Your task to perform on an android device: turn off smart reply in the gmail app Image 0: 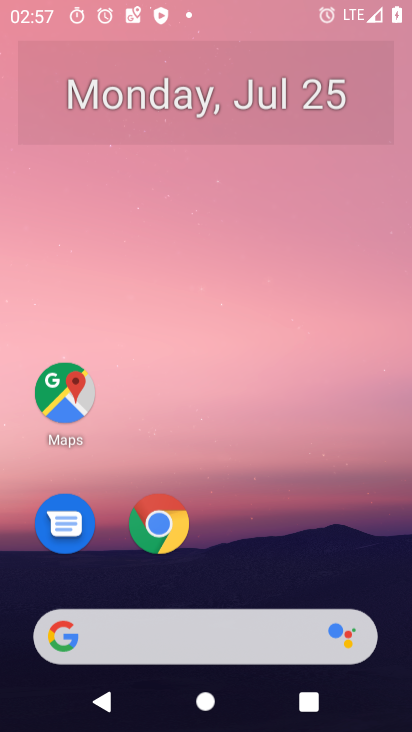
Step 0: press home button
Your task to perform on an android device: turn off smart reply in the gmail app Image 1: 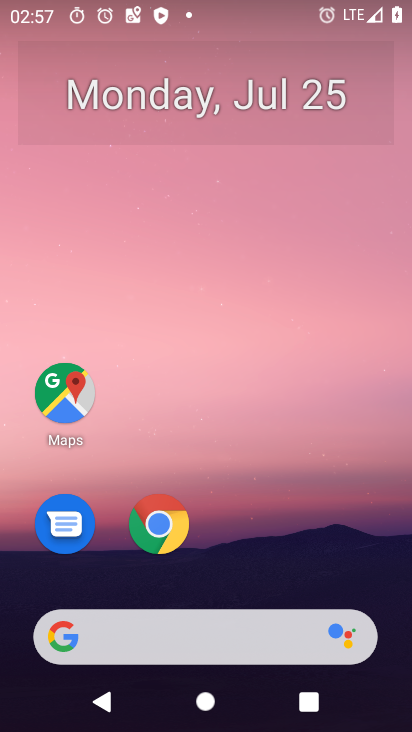
Step 1: drag from (270, 573) to (294, 80)
Your task to perform on an android device: turn off smart reply in the gmail app Image 2: 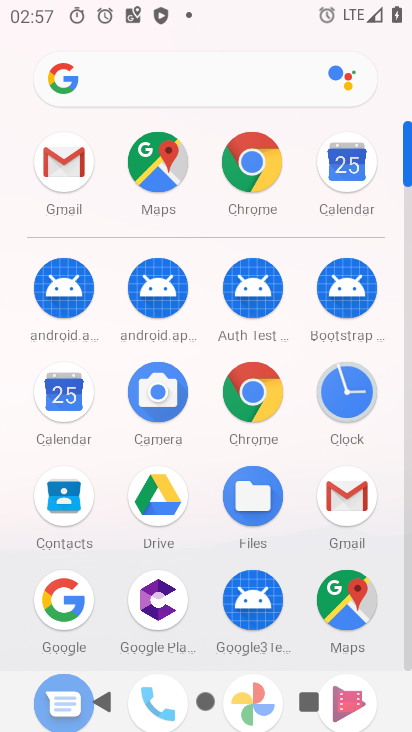
Step 2: click (68, 157)
Your task to perform on an android device: turn off smart reply in the gmail app Image 3: 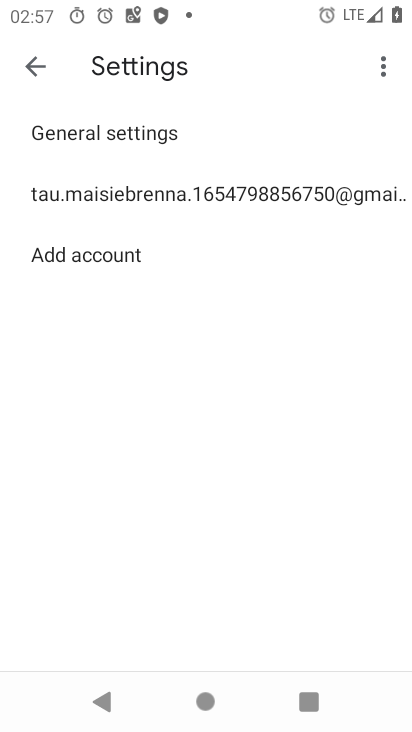
Step 3: click (159, 199)
Your task to perform on an android device: turn off smart reply in the gmail app Image 4: 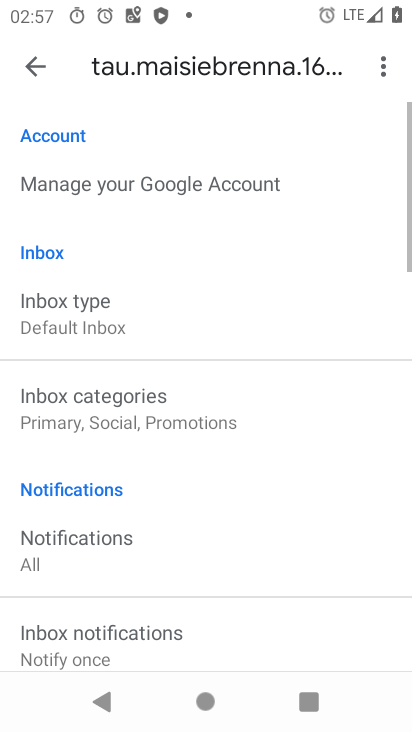
Step 4: drag from (285, 651) to (217, 90)
Your task to perform on an android device: turn off smart reply in the gmail app Image 5: 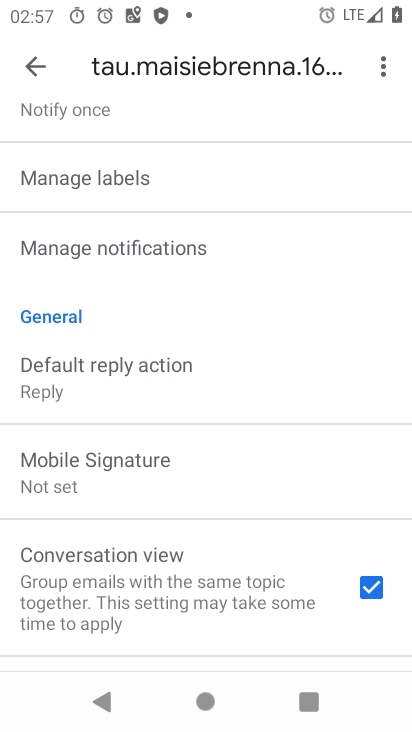
Step 5: drag from (313, 632) to (288, 78)
Your task to perform on an android device: turn off smart reply in the gmail app Image 6: 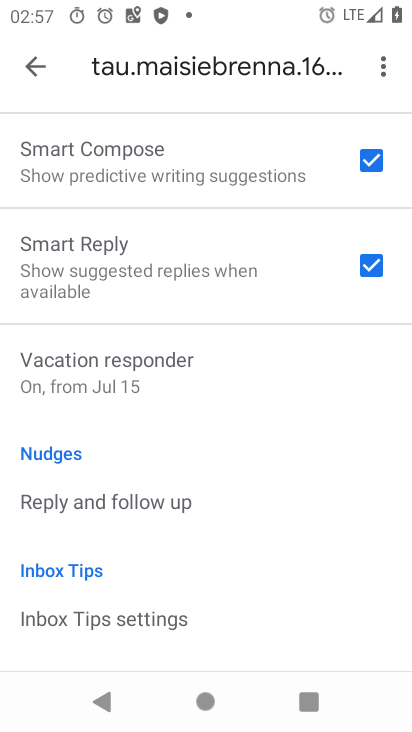
Step 6: click (369, 262)
Your task to perform on an android device: turn off smart reply in the gmail app Image 7: 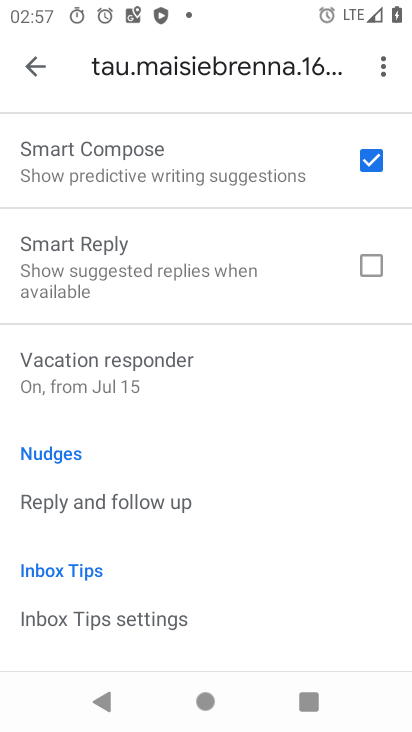
Step 7: task complete